Your task to perform on an android device: Search for Mexican restaurants on Maps Image 0: 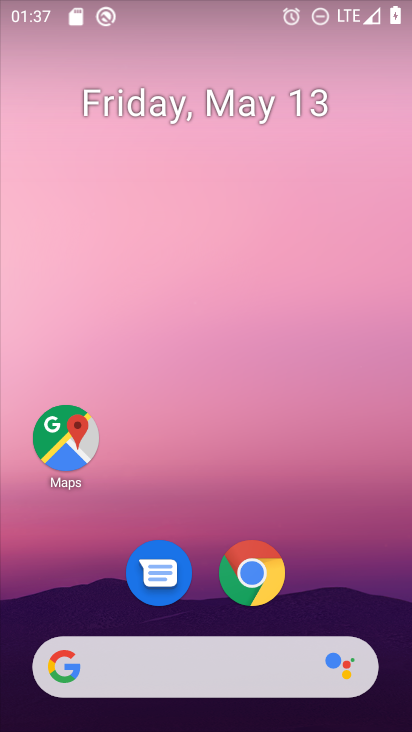
Step 0: click (63, 445)
Your task to perform on an android device: Search for Mexican restaurants on Maps Image 1: 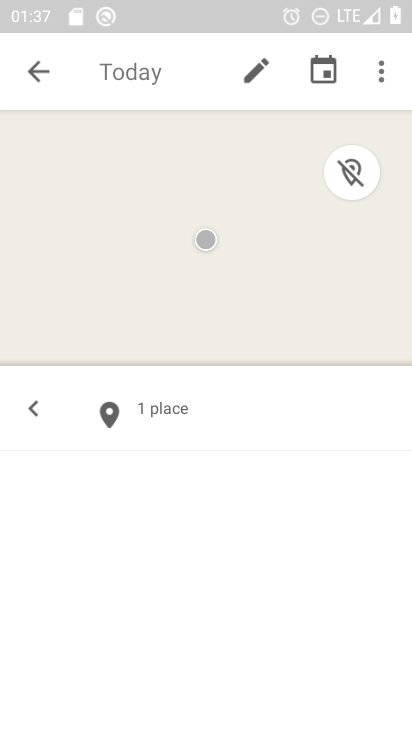
Step 1: click (29, 71)
Your task to perform on an android device: Search for Mexican restaurants on Maps Image 2: 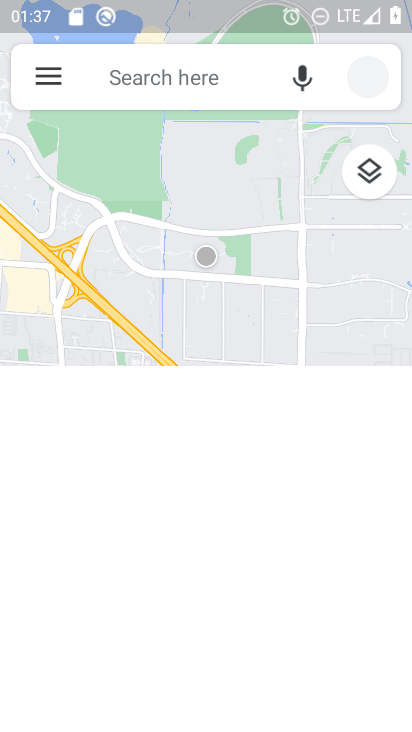
Step 2: click (174, 84)
Your task to perform on an android device: Search for Mexican restaurants on Maps Image 3: 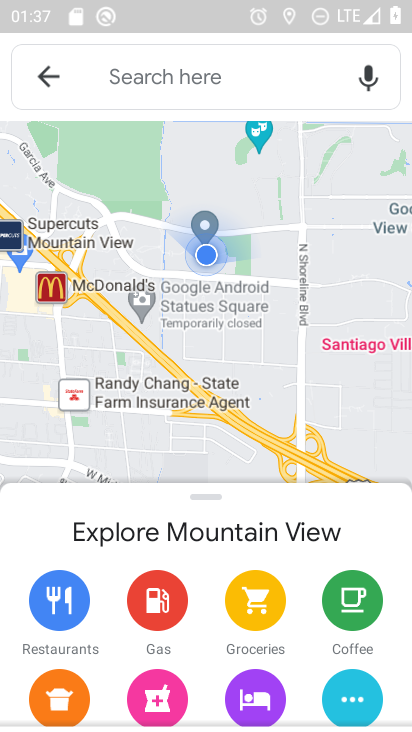
Step 3: click (189, 75)
Your task to perform on an android device: Search for Mexican restaurants on Maps Image 4: 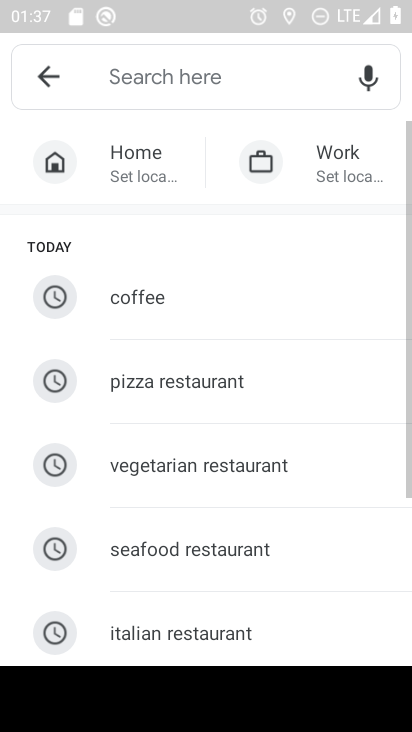
Step 4: drag from (250, 621) to (294, 281)
Your task to perform on an android device: Search for Mexican restaurants on Maps Image 5: 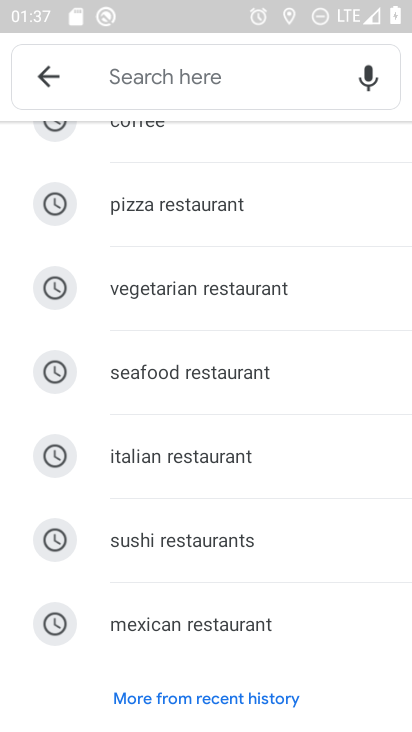
Step 5: click (191, 622)
Your task to perform on an android device: Search for Mexican restaurants on Maps Image 6: 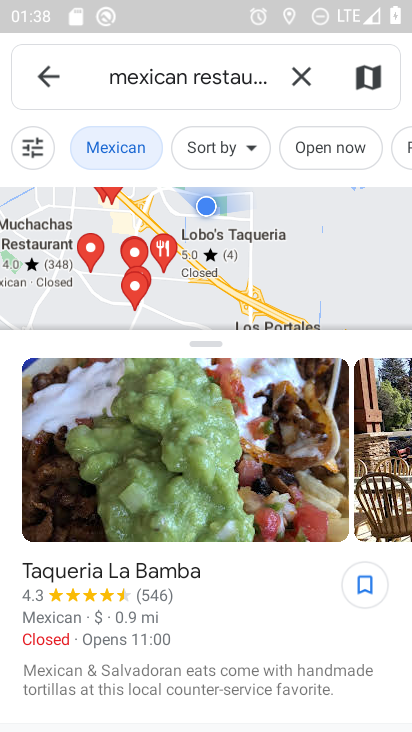
Step 6: task complete